Your task to perform on an android device: toggle show notifications on the lock screen Image 0: 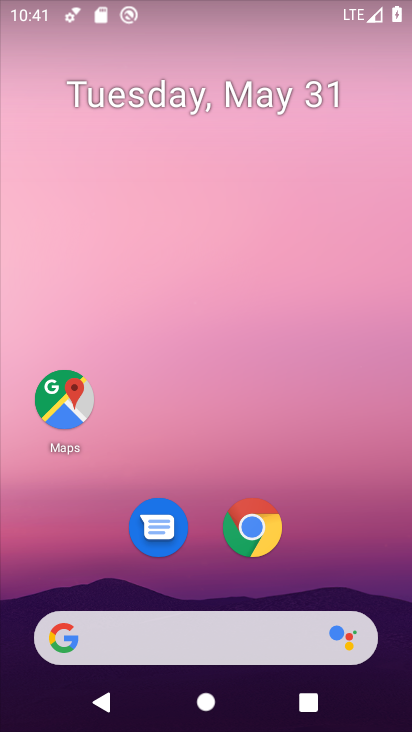
Step 0: press home button
Your task to perform on an android device: toggle show notifications on the lock screen Image 1: 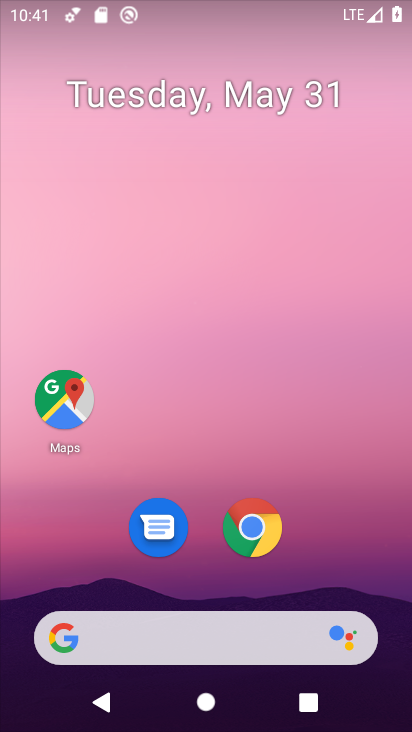
Step 1: drag from (327, 559) to (263, 13)
Your task to perform on an android device: toggle show notifications on the lock screen Image 2: 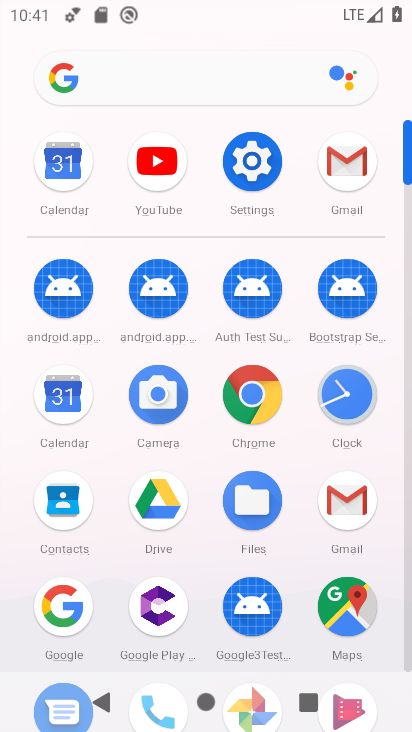
Step 2: click (245, 167)
Your task to perform on an android device: toggle show notifications on the lock screen Image 3: 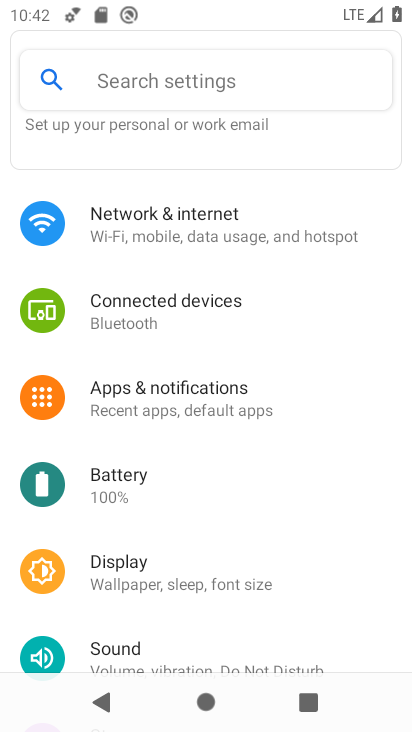
Step 3: click (159, 395)
Your task to perform on an android device: toggle show notifications on the lock screen Image 4: 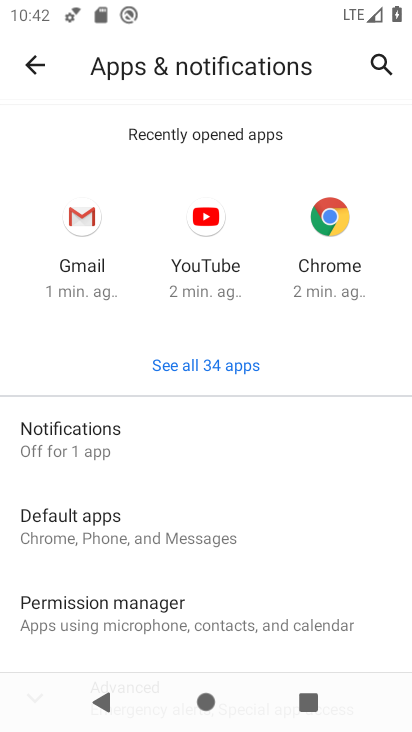
Step 4: click (68, 453)
Your task to perform on an android device: toggle show notifications on the lock screen Image 5: 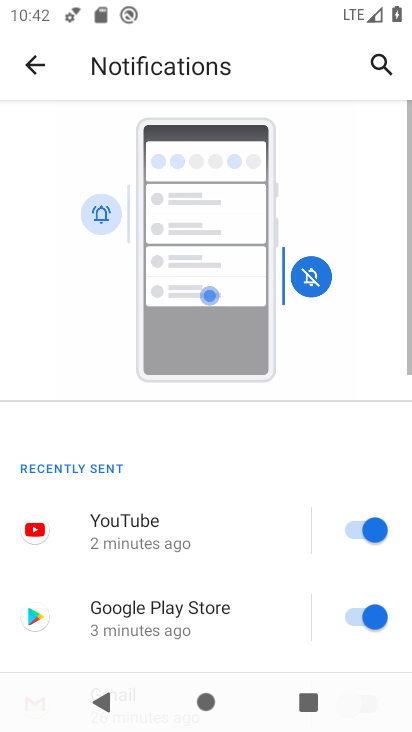
Step 5: drag from (229, 609) to (188, 93)
Your task to perform on an android device: toggle show notifications on the lock screen Image 6: 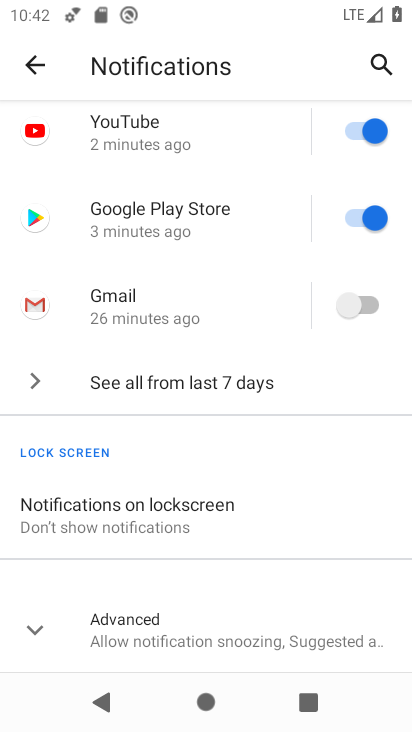
Step 6: click (101, 505)
Your task to perform on an android device: toggle show notifications on the lock screen Image 7: 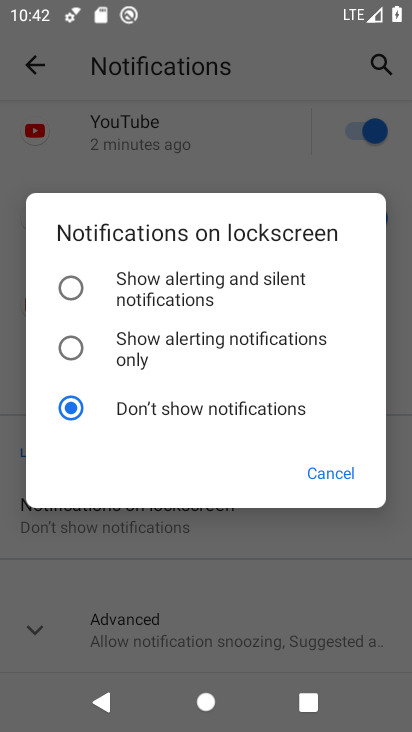
Step 7: click (61, 287)
Your task to perform on an android device: toggle show notifications on the lock screen Image 8: 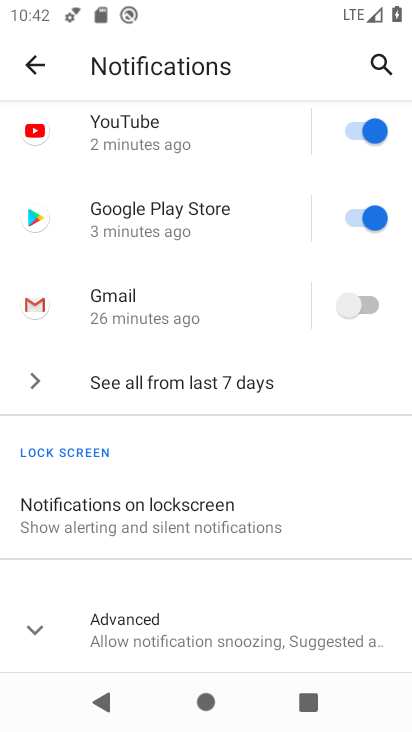
Step 8: task complete